Your task to perform on an android device: Go to Google Image 0: 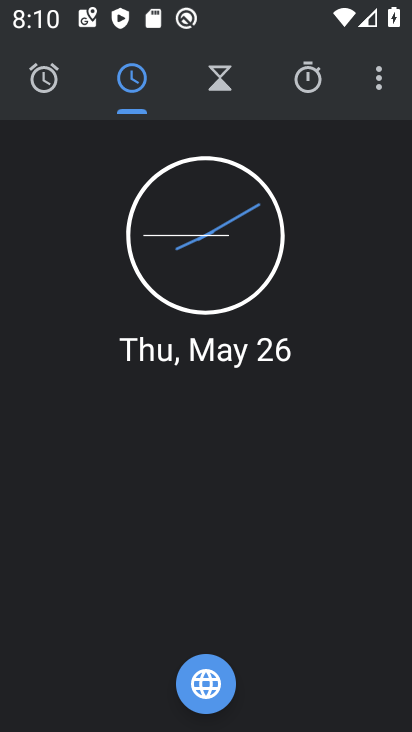
Step 0: press home button
Your task to perform on an android device: Go to Google Image 1: 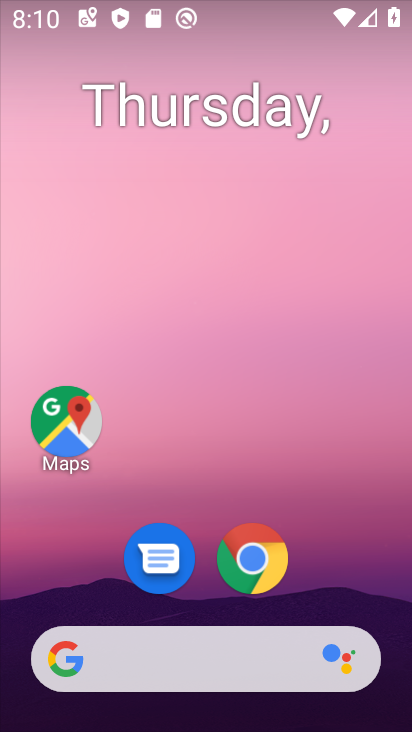
Step 1: drag from (255, 629) to (282, 40)
Your task to perform on an android device: Go to Google Image 2: 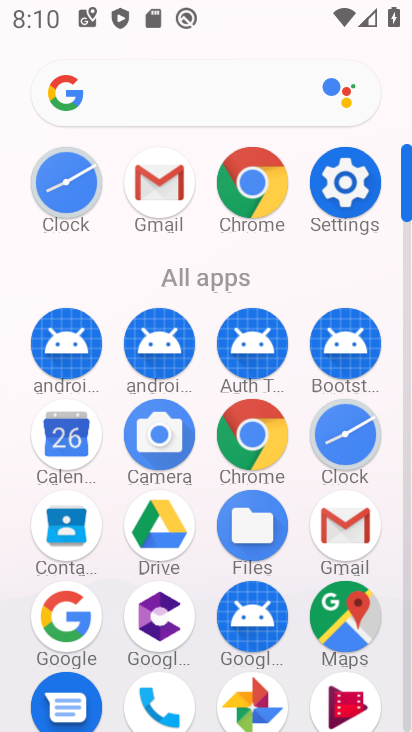
Step 2: click (75, 615)
Your task to perform on an android device: Go to Google Image 3: 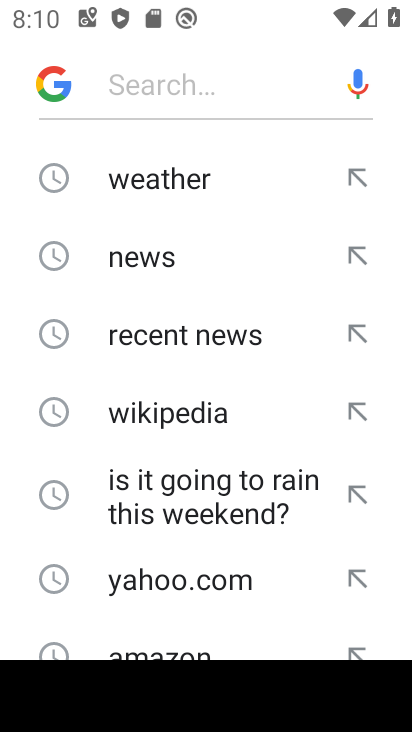
Step 3: task complete